Your task to perform on an android device: Do I have any events tomorrow? Image 0: 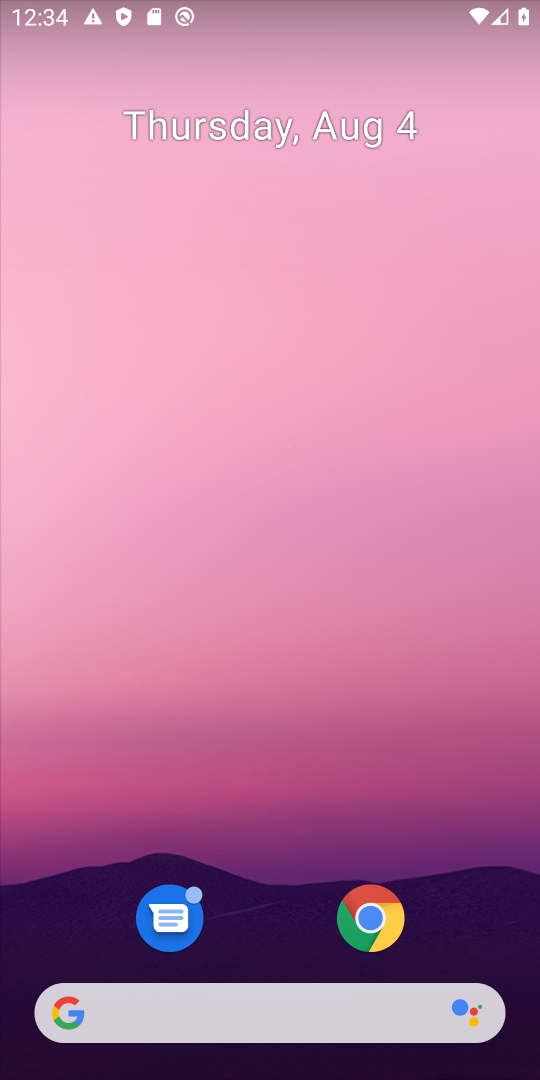
Step 0: drag from (246, 936) to (263, 287)
Your task to perform on an android device: Do I have any events tomorrow? Image 1: 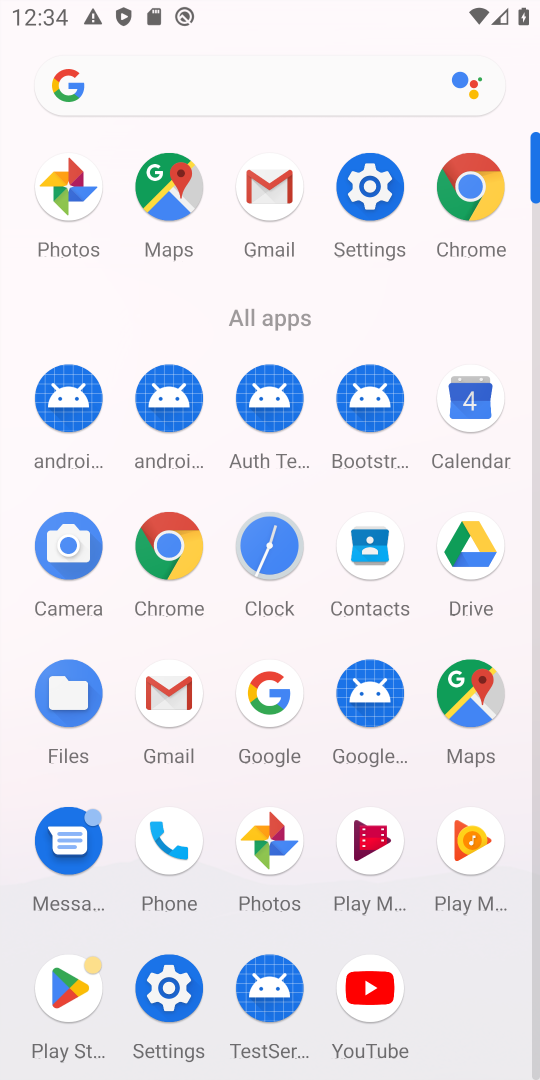
Step 1: click (466, 440)
Your task to perform on an android device: Do I have any events tomorrow? Image 2: 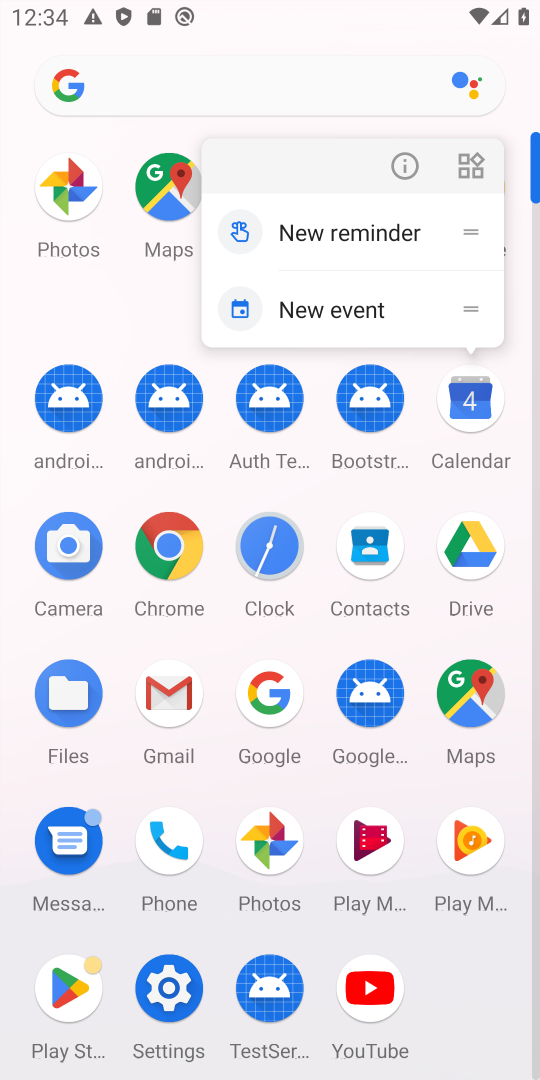
Step 2: click (466, 440)
Your task to perform on an android device: Do I have any events tomorrow? Image 3: 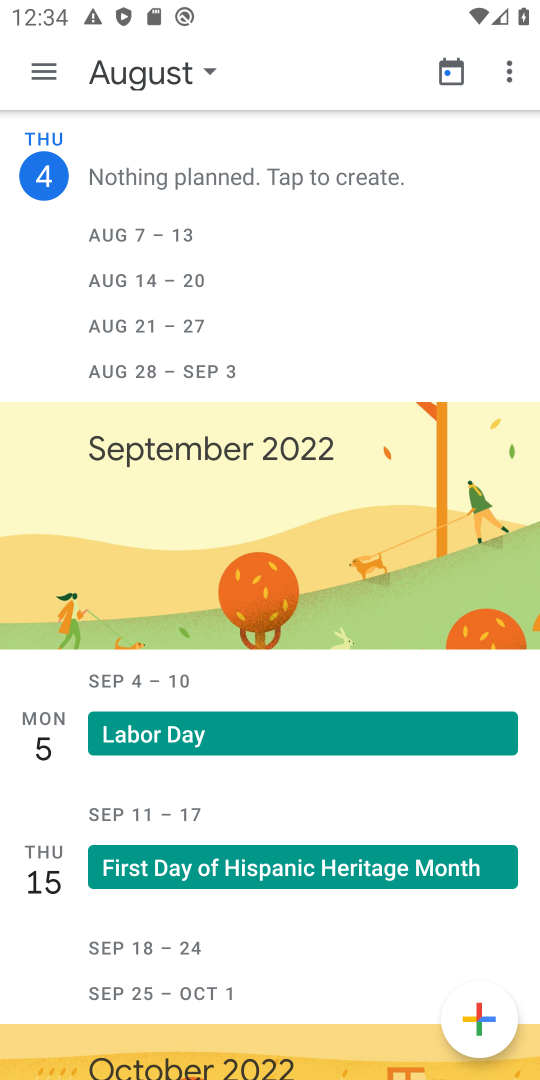
Step 3: click (205, 79)
Your task to perform on an android device: Do I have any events tomorrow? Image 4: 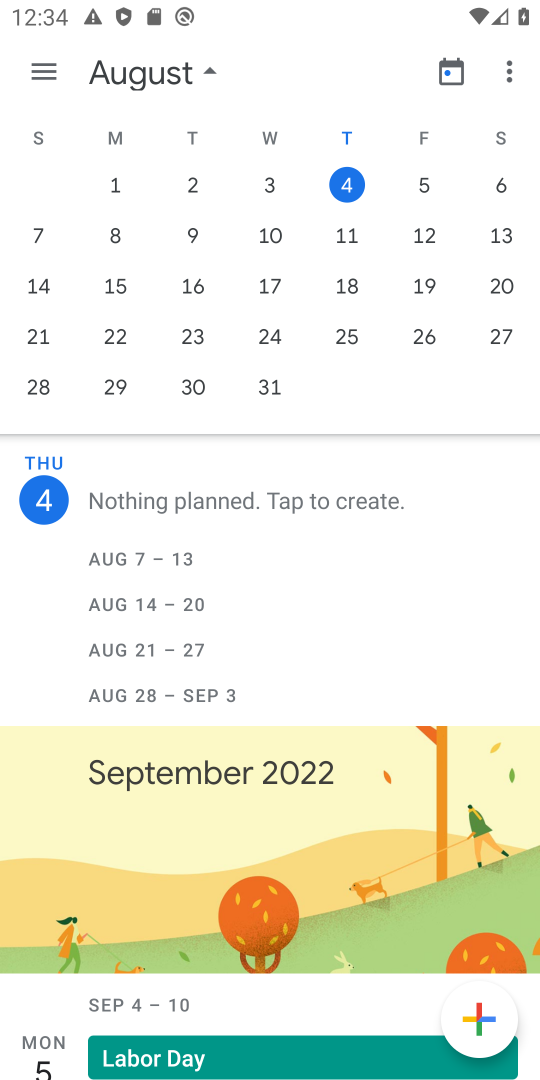
Step 4: click (412, 176)
Your task to perform on an android device: Do I have any events tomorrow? Image 5: 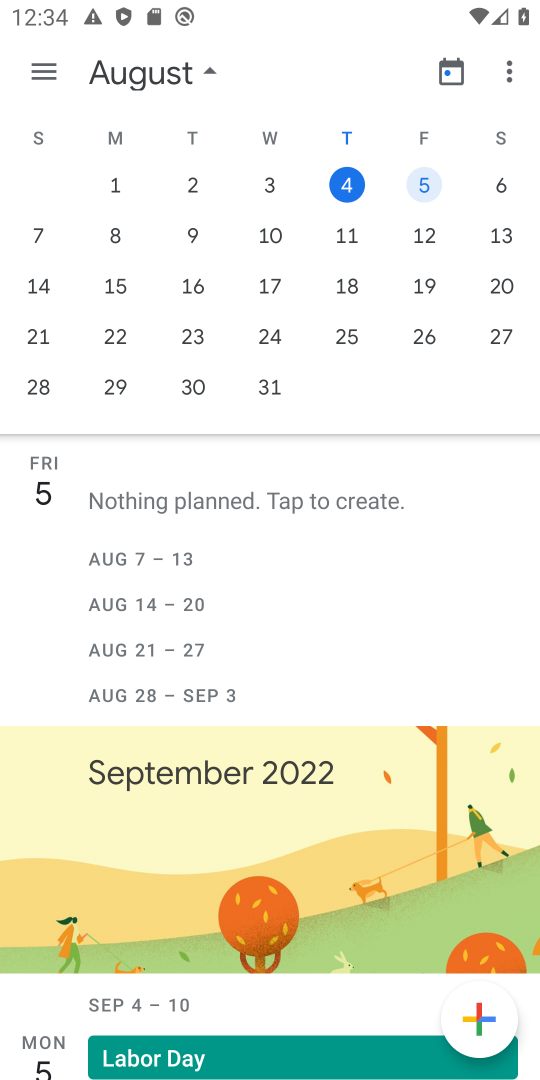
Step 5: click (407, 179)
Your task to perform on an android device: Do I have any events tomorrow? Image 6: 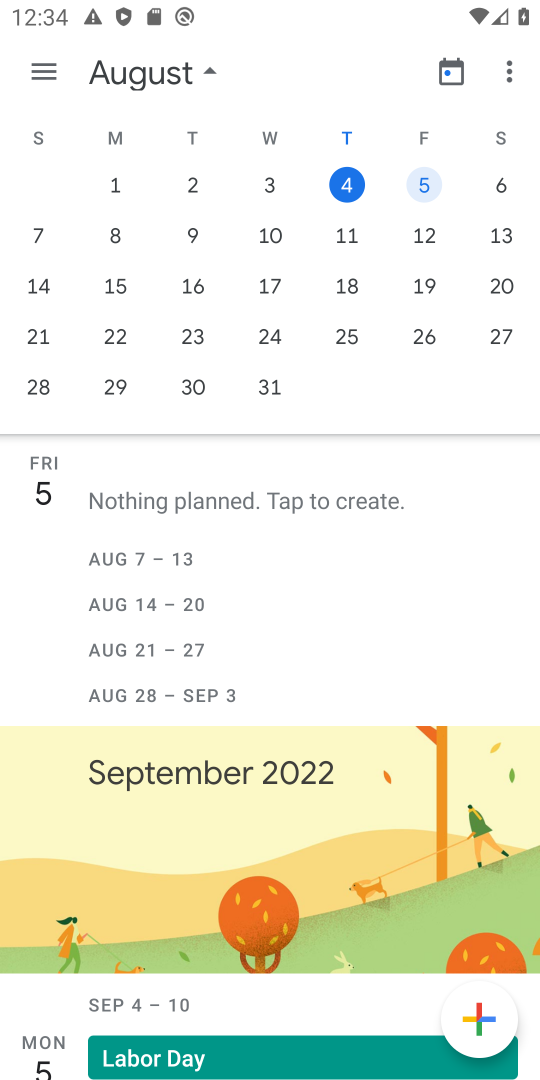
Step 6: task complete